Your task to perform on an android device: What's the weather? Image 0: 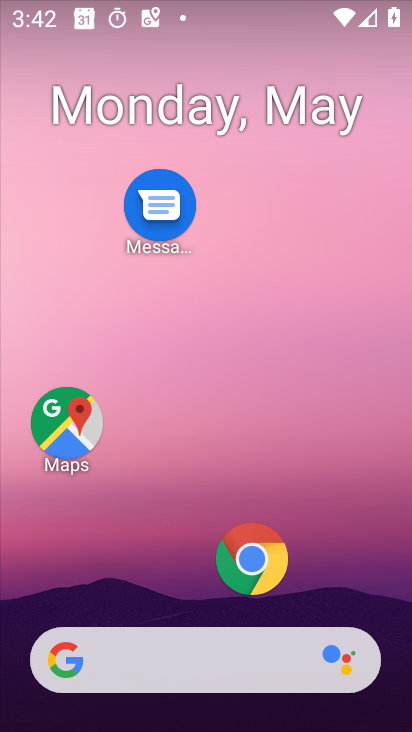
Step 0: drag from (182, 578) to (165, 94)
Your task to perform on an android device: What's the weather? Image 1: 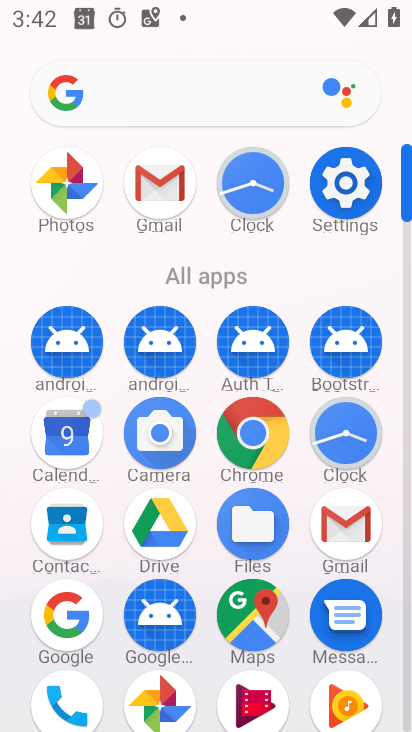
Step 1: click (245, 425)
Your task to perform on an android device: What's the weather? Image 2: 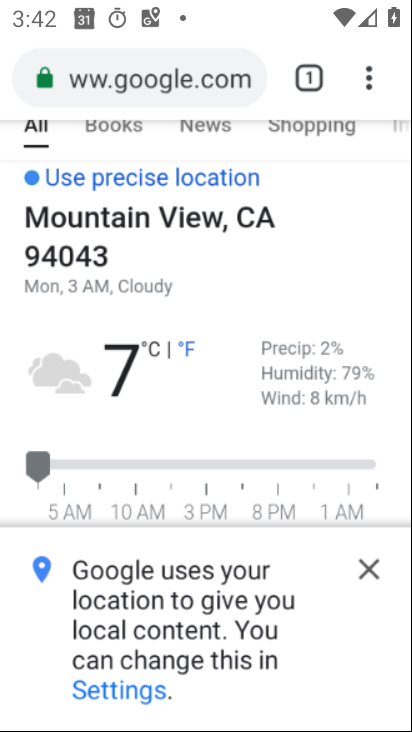
Step 2: click (168, 152)
Your task to perform on an android device: What's the weather? Image 3: 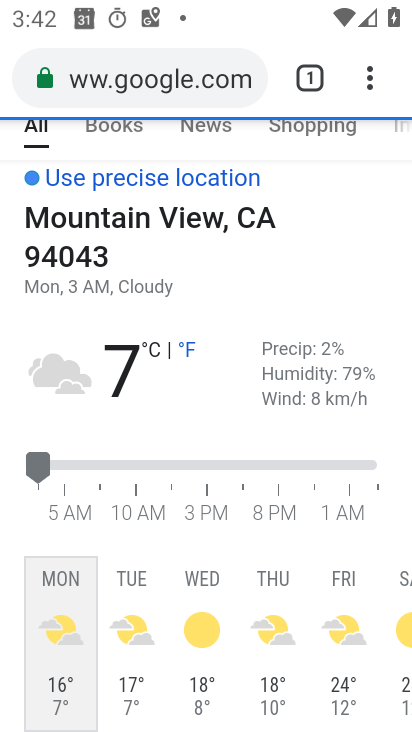
Step 3: click (140, 82)
Your task to perform on an android device: What's the weather? Image 4: 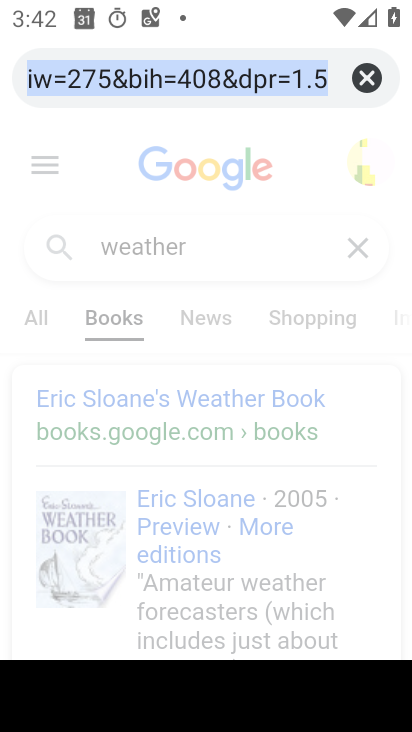
Step 4: type "weather"
Your task to perform on an android device: What's the weather? Image 5: 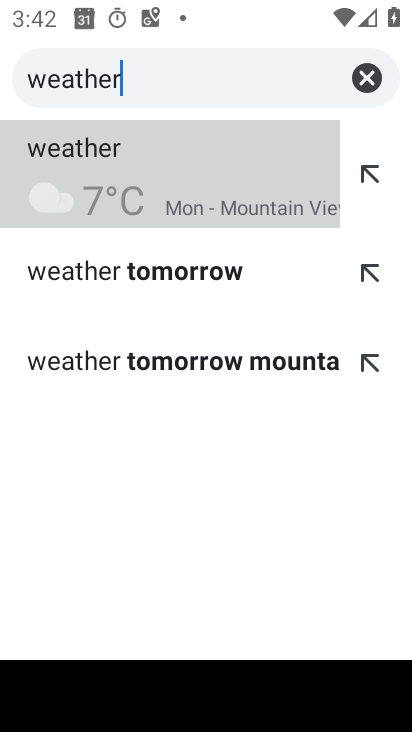
Step 5: click (196, 185)
Your task to perform on an android device: What's the weather? Image 6: 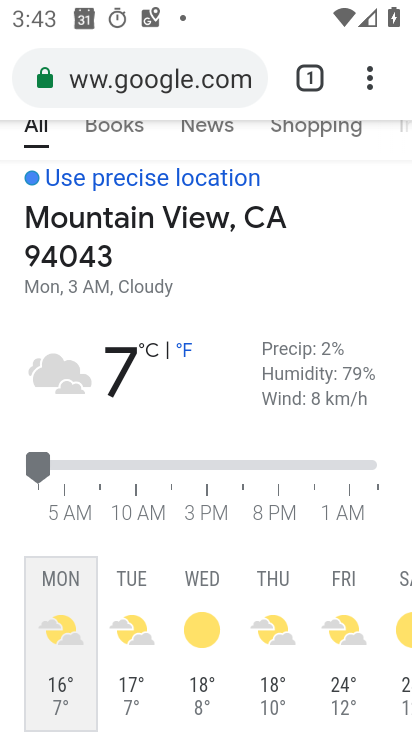
Step 6: task complete